Your task to perform on an android device: choose inbox layout in the gmail app Image 0: 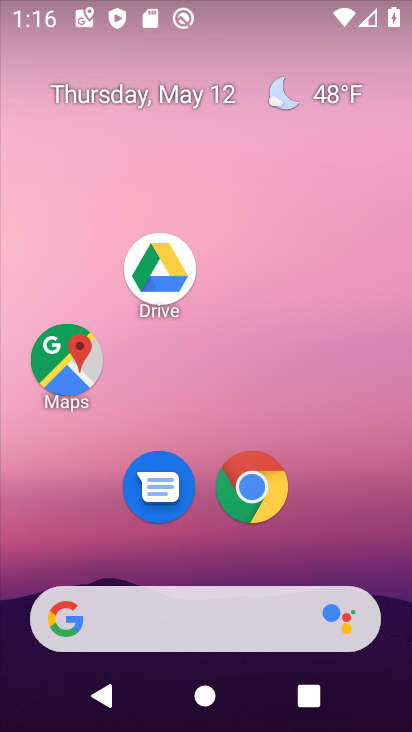
Step 0: drag from (230, 561) to (172, 62)
Your task to perform on an android device: choose inbox layout in the gmail app Image 1: 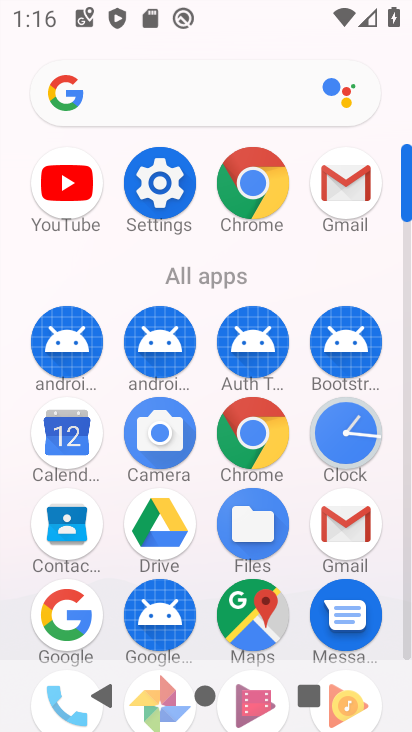
Step 1: click (343, 529)
Your task to perform on an android device: choose inbox layout in the gmail app Image 2: 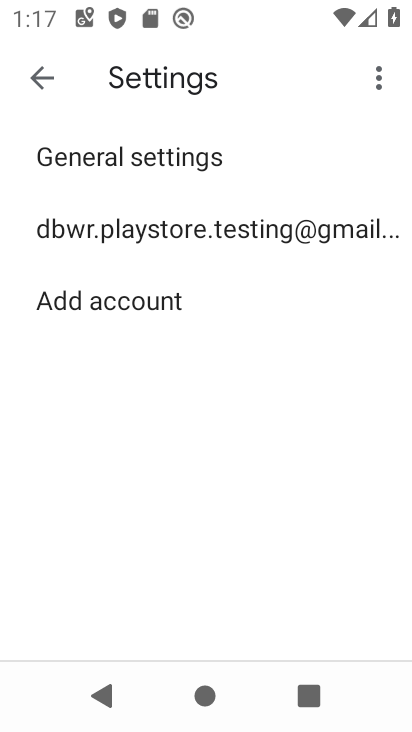
Step 2: click (184, 232)
Your task to perform on an android device: choose inbox layout in the gmail app Image 3: 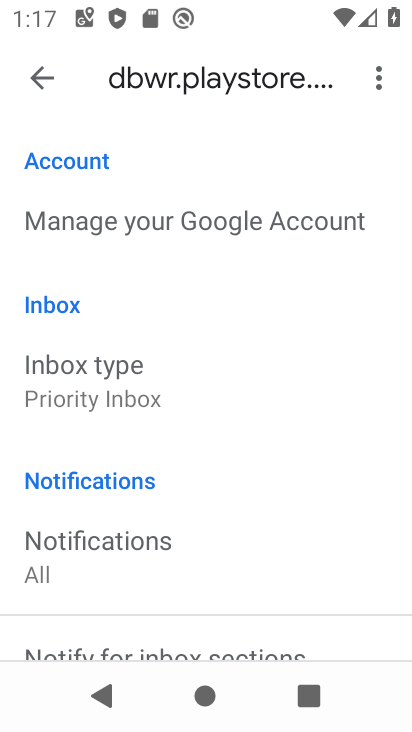
Step 3: click (166, 388)
Your task to perform on an android device: choose inbox layout in the gmail app Image 4: 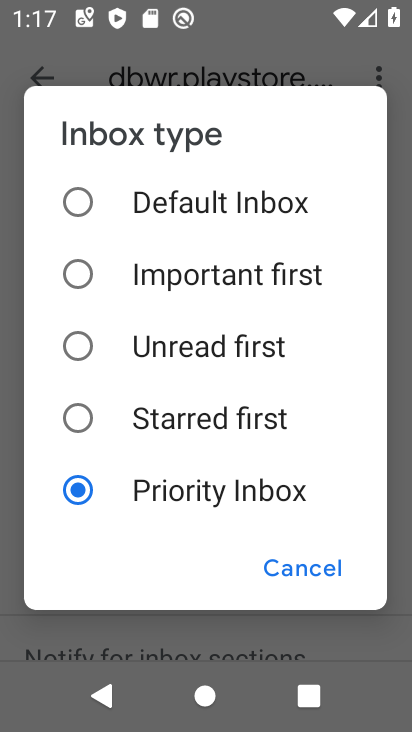
Step 4: click (212, 479)
Your task to perform on an android device: choose inbox layout in the gmail app Image 5: 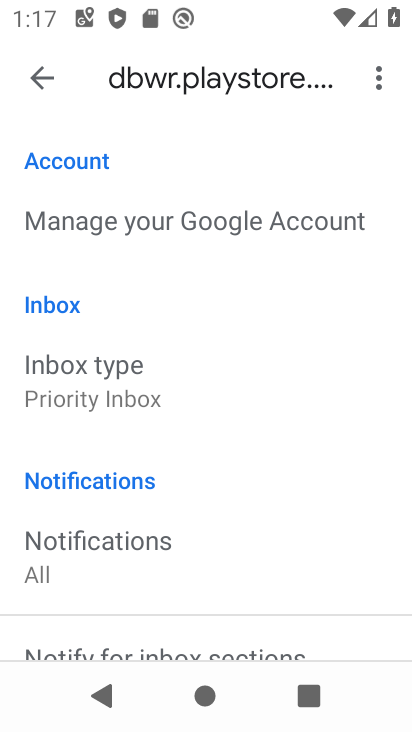
Step 5: click (53, 94)
Your task to perform on an android device: choose inbox layout in the gmail app Image 6: 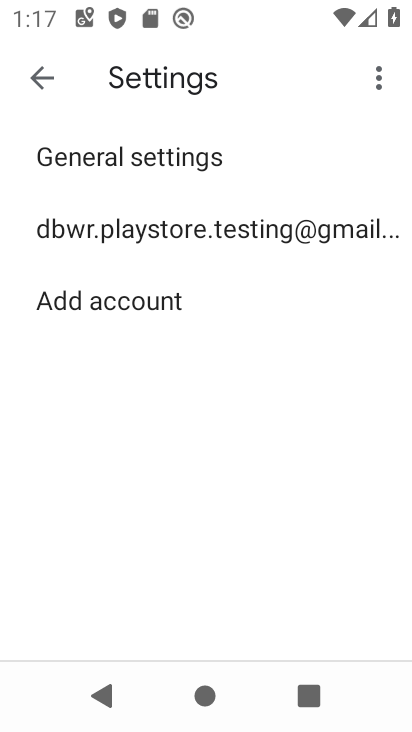
Step 6: click (52, 94)
Your task to perform on an android device: choose inbox layout in the gmail app Image 7: 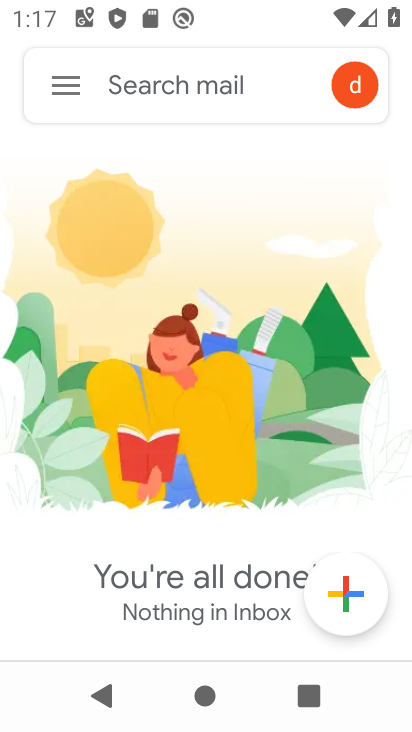
Step 7: task complete